Your task to perform on an android device: open wifi settings Image 0: 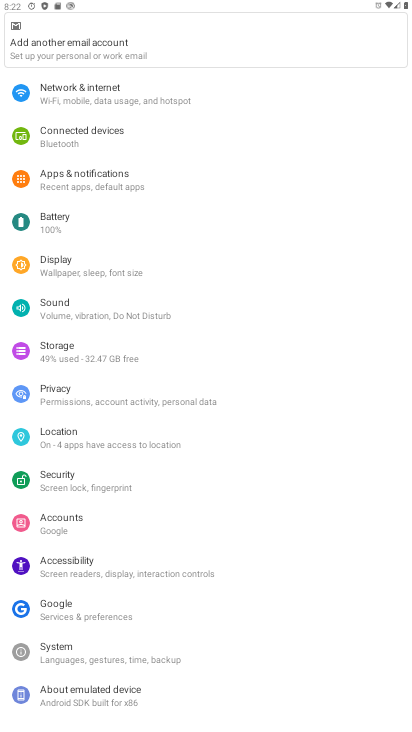
Step 0: press home button
Your task to perform on an android device: open wifi settings Image 1: 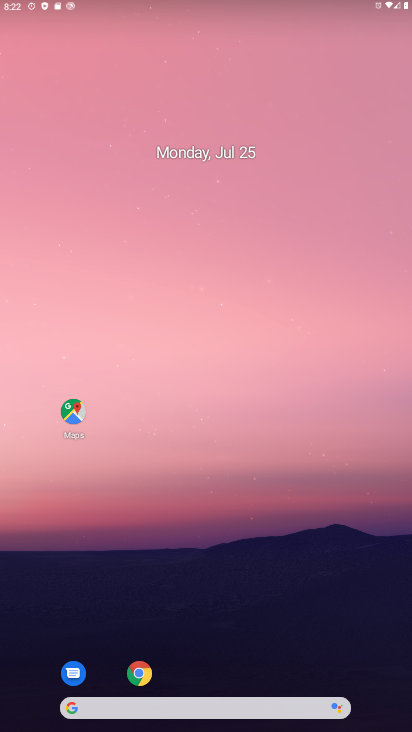
Step 1: drag from (318, 590) to (114, 68)
Your task to perform on an android device: open wifi settings Image 2: 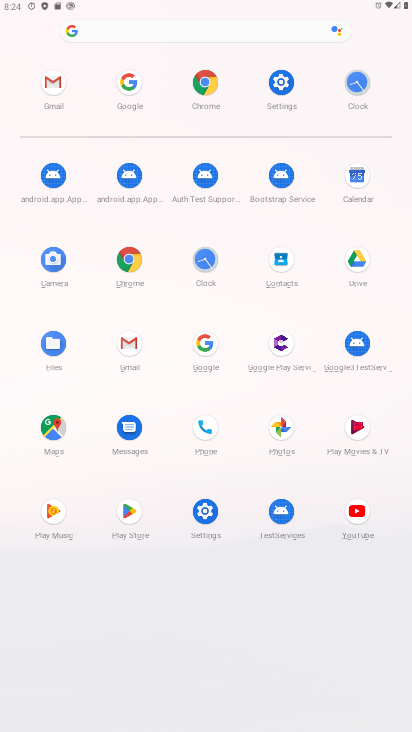
Step 2: click (212, 518)
Your task to perform on an android device: open wifi settings Image 3: 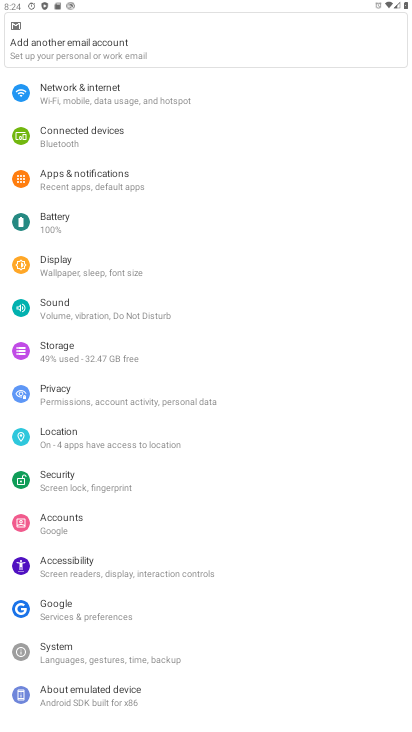
Step 3: click (103, 86)
Your task to perform on an android device: open wifi settings Image 4: 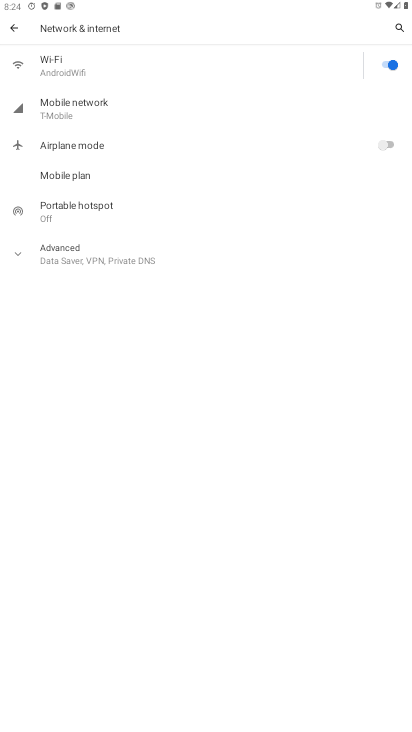
Step 4: click (103, 86)
Your task to perform on an android device: open wifi settings Image 5: 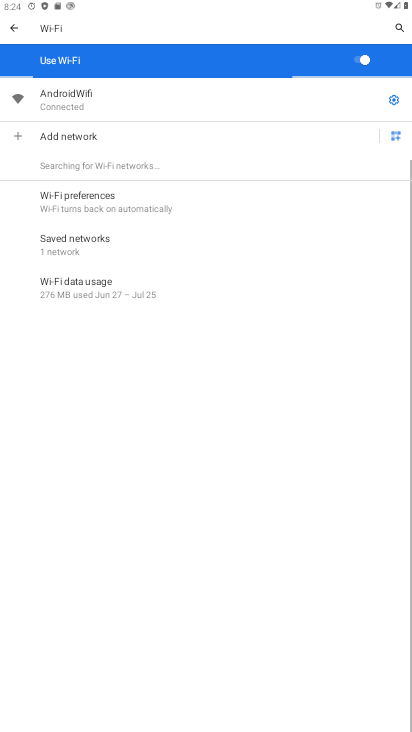
Step 5: task complete